Your task to perform on an android device: Search for seafood restaurants on Google Maps Image 0: 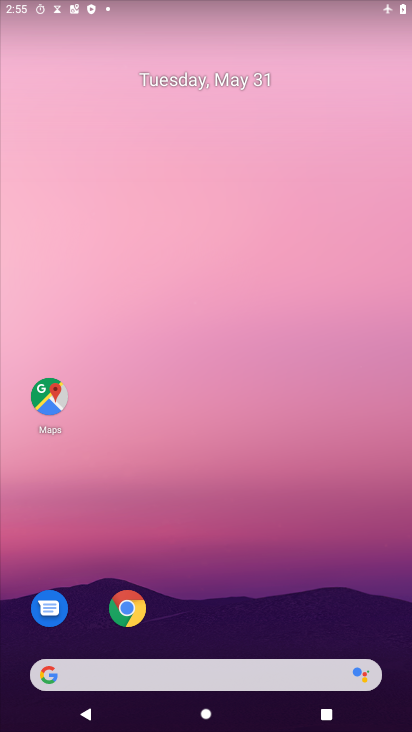
Step 0: click (47, 399)
Your task to perform on an android device: Search for seafood restaurants on Google Maps Image 1: 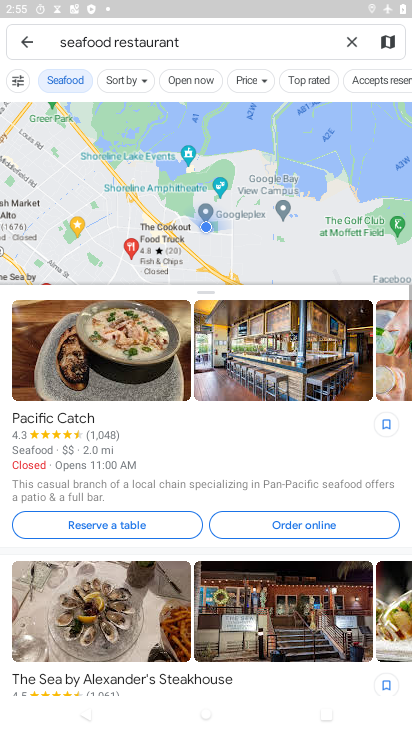
Step 1: click (265, 94)
Your task to perform on an android device: Search for seafood restaurants on Google Maps Image 2: 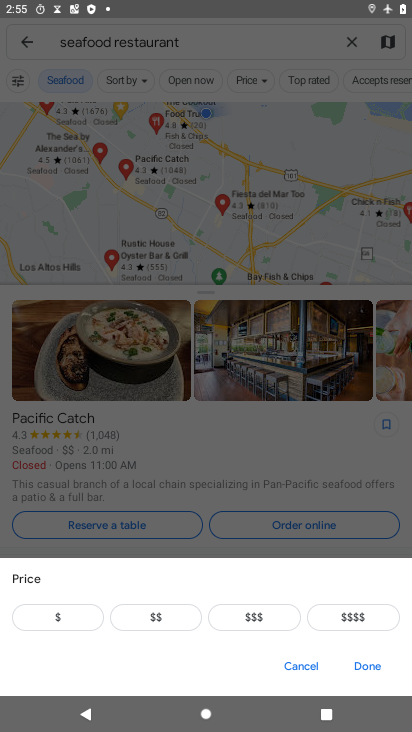
Step 2: task complete